Your task to perform on an android device: clear all cookies in the chrome app Image 0: 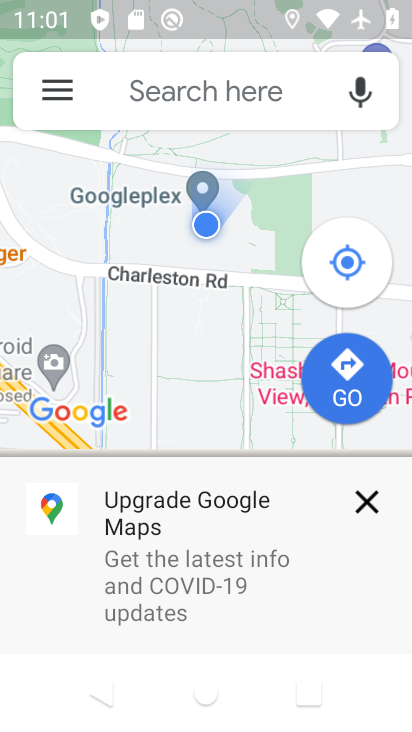
Step 0: press home button
Your task to perform on an android device: clear all cookies in the chrome app Image 1: 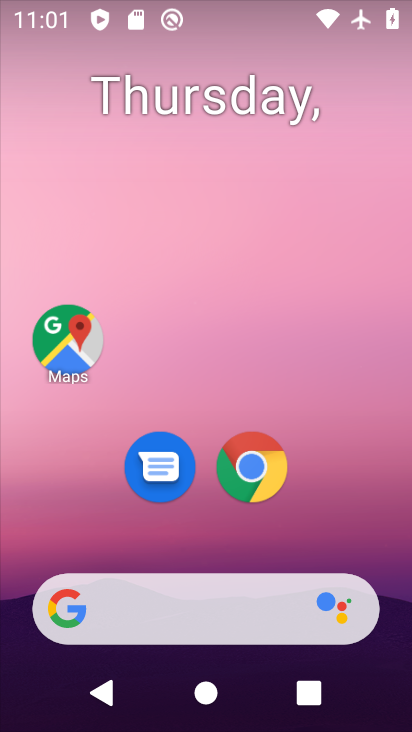
Step 1: click (258, 469)
Your task to perform on an android device: clear all cookies in the chrome app Image 2: 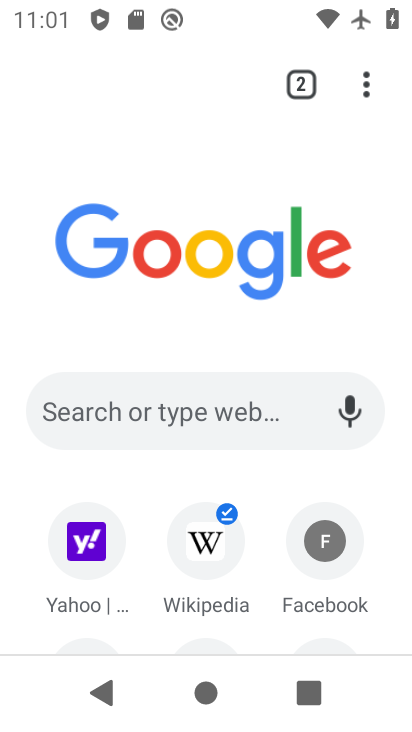
Step 2: click (366, 88)
Your task to perform on an android device: clear all cookies in the chrome app Image 3: 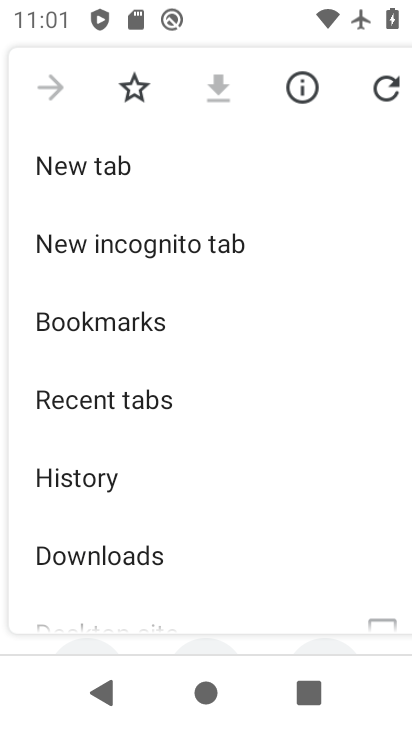
Step 3: drag from (217, 493) to (198, 110)
Your task to perform on an android device: clear all cookies in the chrome app Image 4: 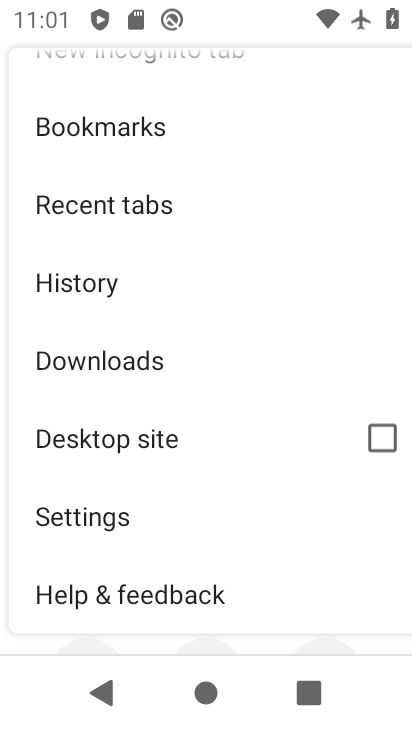
Step 4: click (92, 517)
Your task to perform on an android device: clear all cookies in the chrome app Image 5: 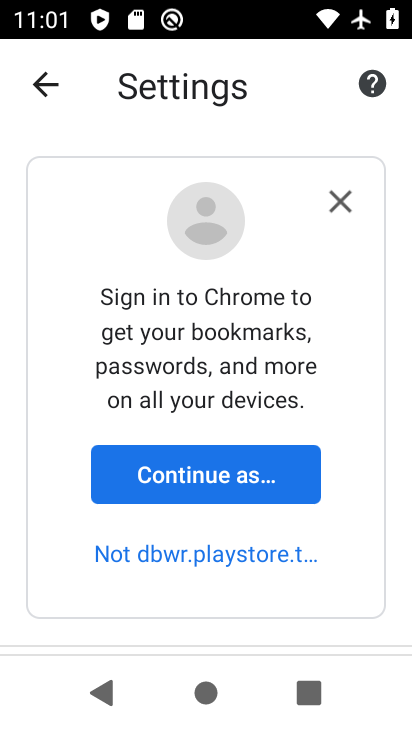
Step 5: drag from (246, 590) to (200, 135)
Your task to perform on an android device: clear all cookies in the chrome app Image 6: 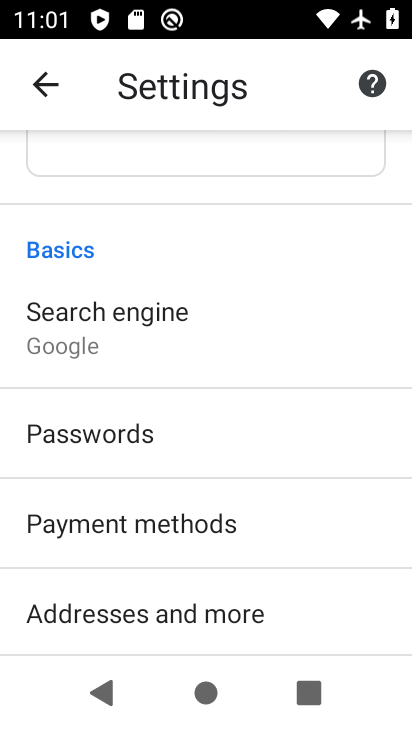
Step 6: drag from (179, 470) to (185, 128)
Your task to perform on an android device: clear all cookies in the chrome app Image 7: 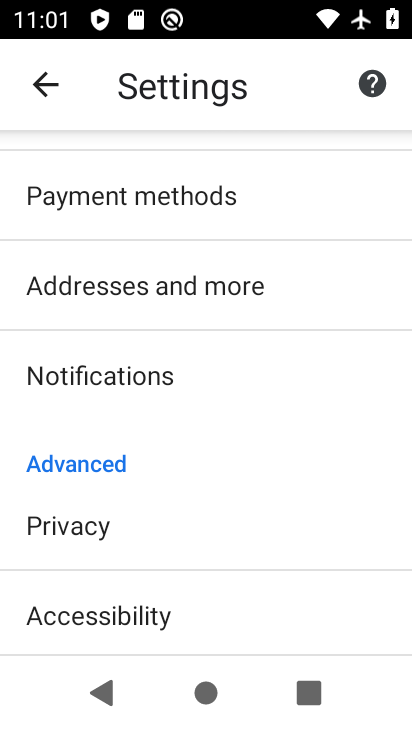
Step 7: drag from (175, 503) to (166, 257)
Your task to perform on an android device: clear all cookies in the chrome app Image 8: 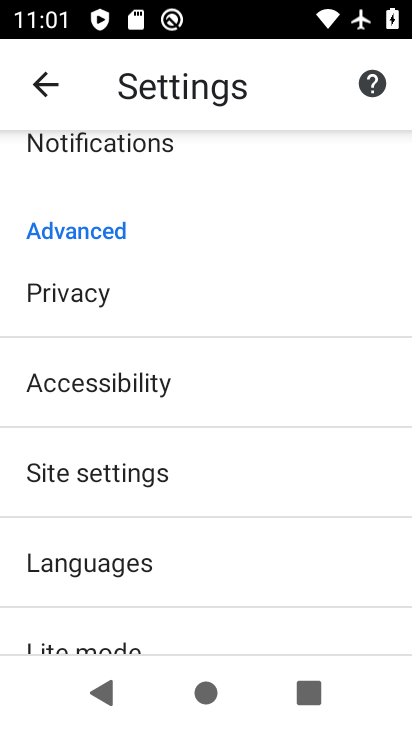
Step 8: click (89, 301)
Your task to perform on an android device: clear all cookies in the chrome app Image 9: 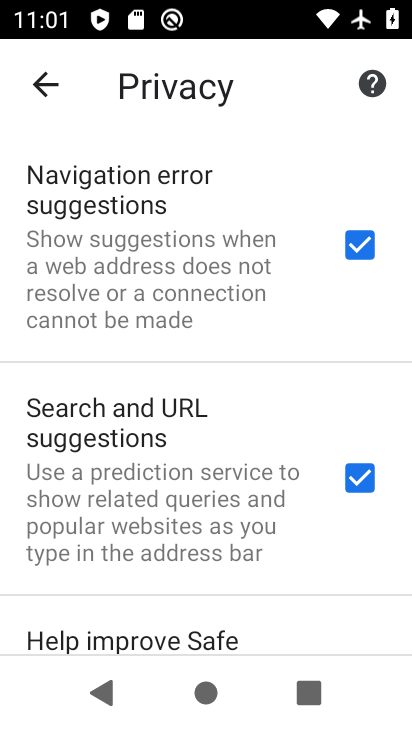
Step 9: drag from (162, 565) to (162, 181)
Your task to perform on an android device: clear all cookies in the chrome app Image 10: 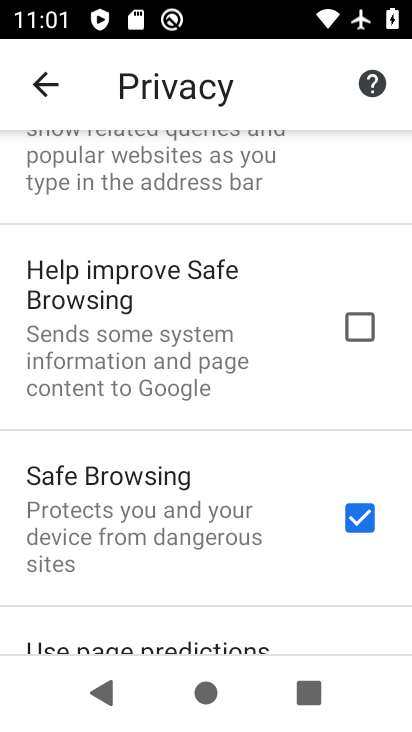
Step 10: drag from (137, 501) to (133, 178)
Your task to perform on an android device: clear all cookies in the chrome app Image 11: 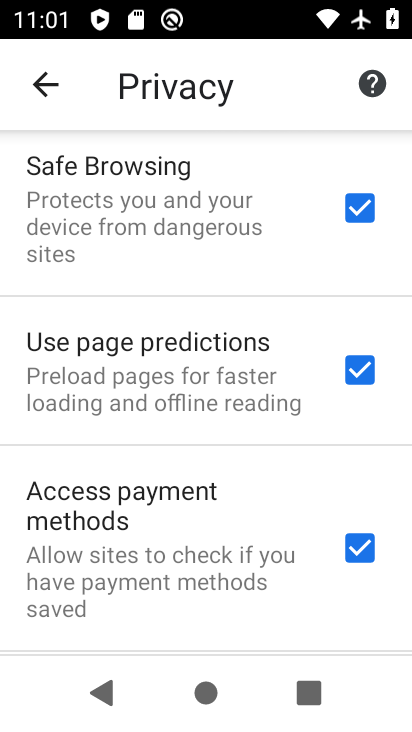
Step 11: drag from (121, 508) to (128, 146)
Your task to perform on an android device: clear all cookies in the chrome app Image 12: 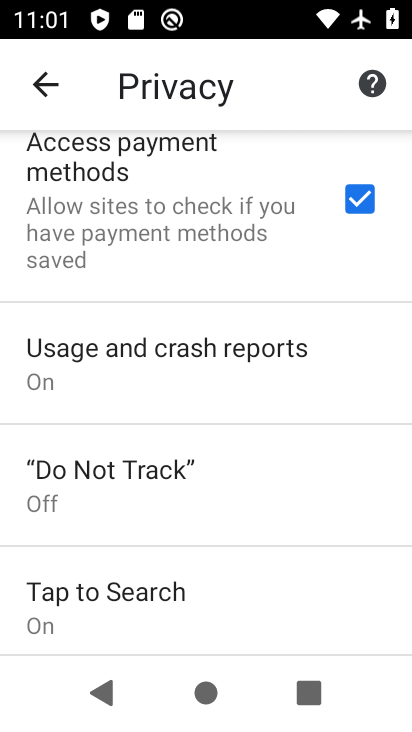
Step 12: drag from (157, 508) to (152, 123)
Your task to perform on an android device: clear all cookies in the chrome app Image 13: 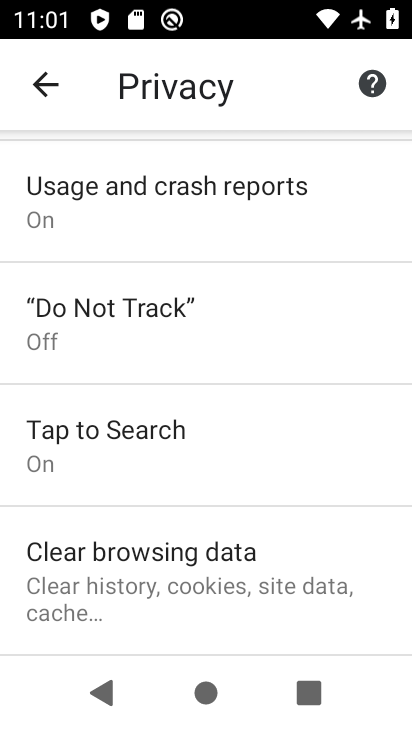
Step 13: click (122, 574)
Your task to perform on an android device: clear all cookies in the chrome app Image 14: 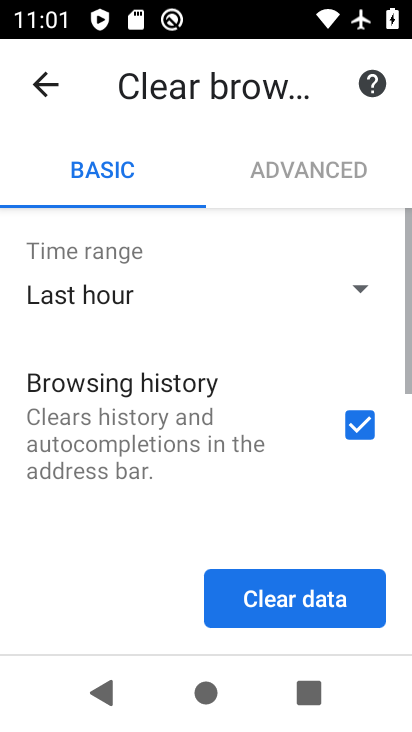
Step 14: drag from (136, 455) to (149, 193)
Your task to perform on an android device: clear all cookies in the chrome app Image 15: 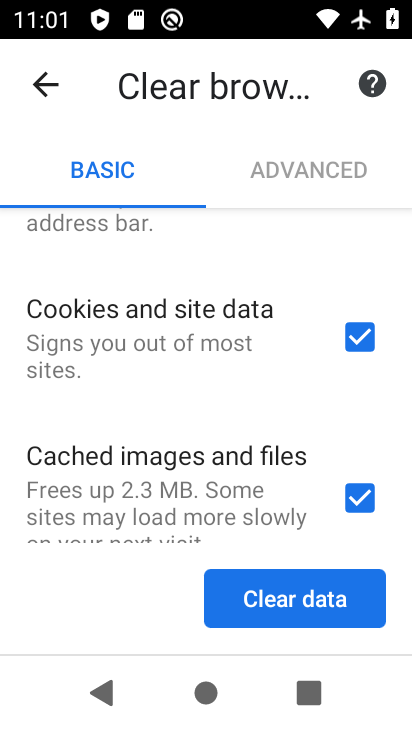
Step 15: drag from (347, 221) to (354, 290)
Your task to perform on an android device: clear all cookies in the chrome app Image 16: 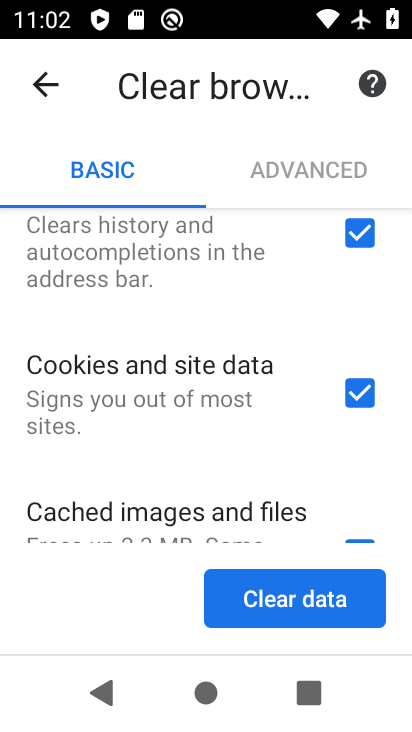
Step 16: click (353, 231)
Your task to perform on an android device: clear all cookies in the chrome app Image 17: 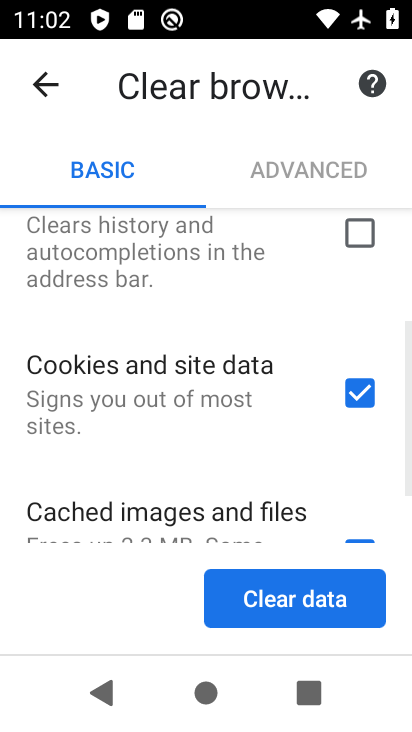
Step 17: drag from (107, 413) to (109, 319)
Your task to perform on an android device: clear all cookies in the chrome app Image 18: 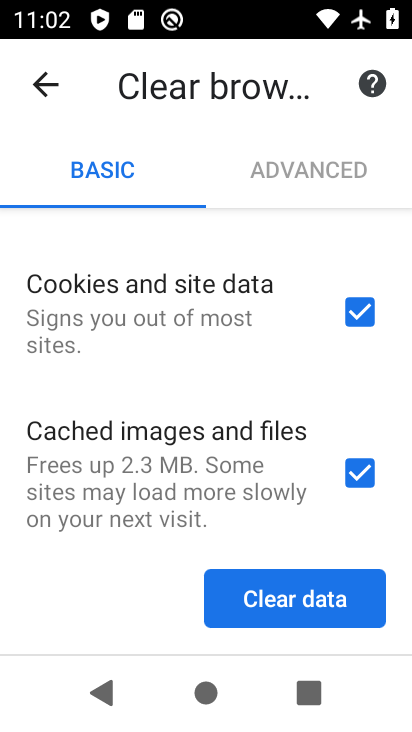
Step 18: click (345, 477)
Your task to perform on an android device: clear all cookies in the chrome app Image 19: 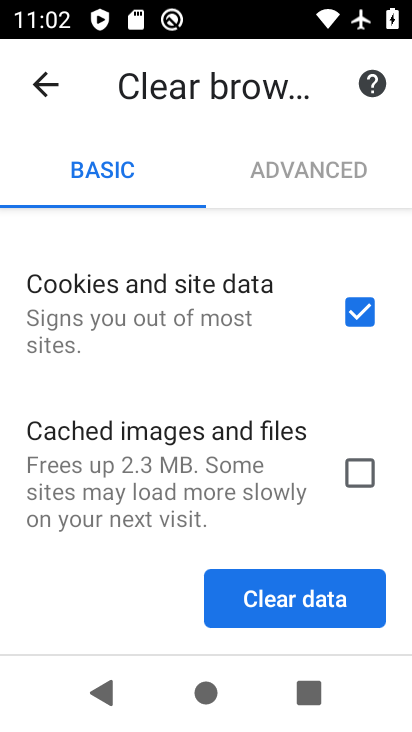
Step 19: click (277, 610)
Your task to perform on an android device: clear all cookies in the chrome app Image 20: 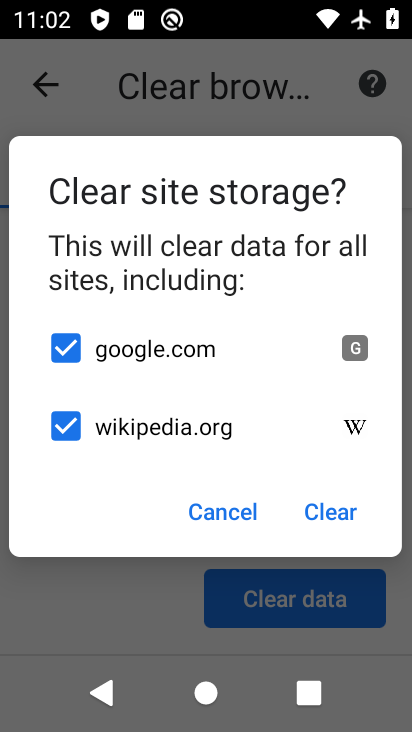
Step 20: click (327, 513)
Your task to perform on an android device: clear all cookies in the chrome app Image 21: 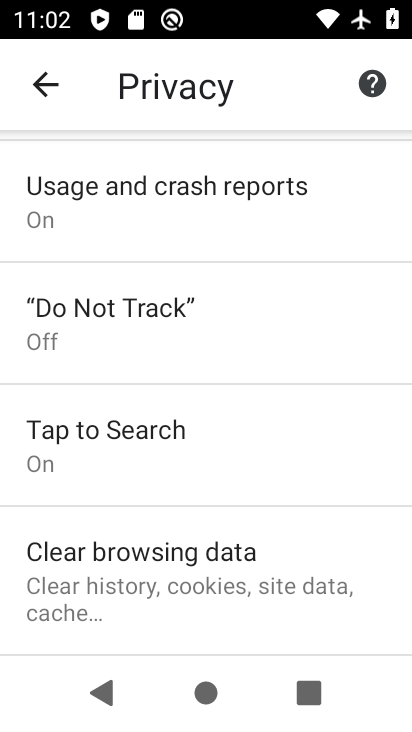
Step 21: task complete